Your task to perform on an android device: turn on bluetooth scan Image 0: 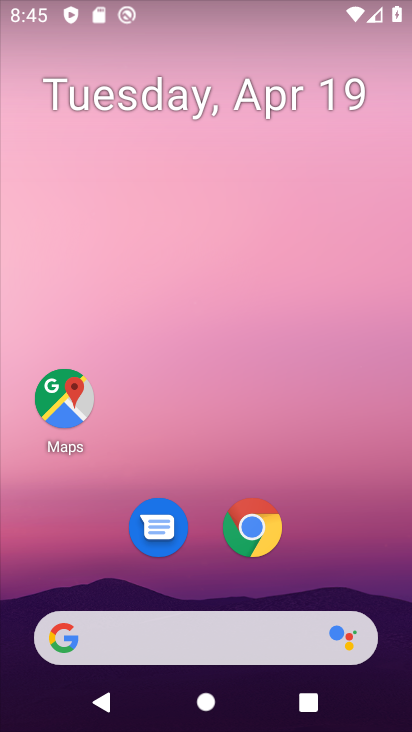
Step 0: drag from (401, 579) to (280, 207)
Your task to perform on an android device: turn on bluetooth scan Image 1: 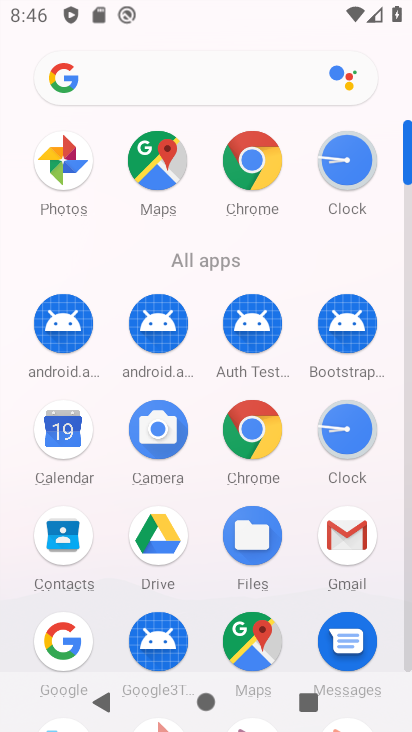
Step 1: click (410, 617)
Your task to perform on an android device: turn on bluetooth scan Image 2: 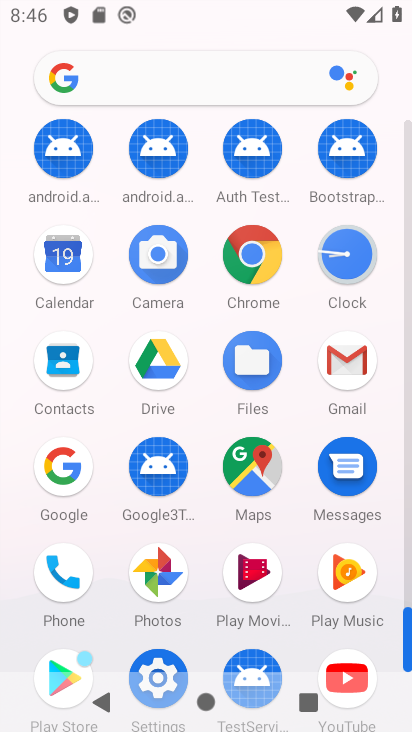
Step 2: click (165, 659)
Your task to perform on an android device: turn on bluetooth scan Image 3: 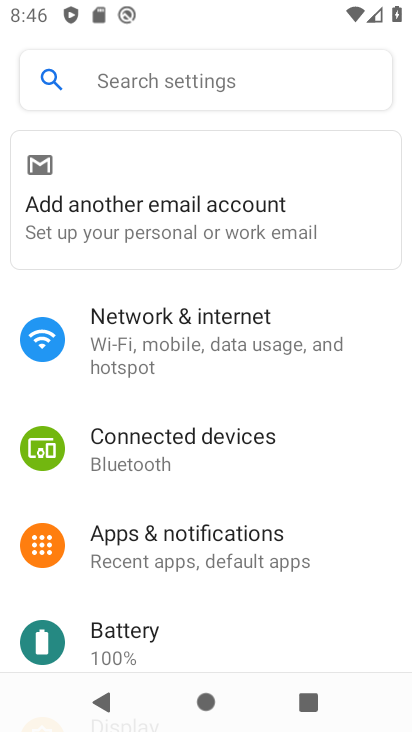
Step 3: drag from (264, 607) to (307, 10)
Your task to perform on an android device: turn on bluetooth scan Image 4: 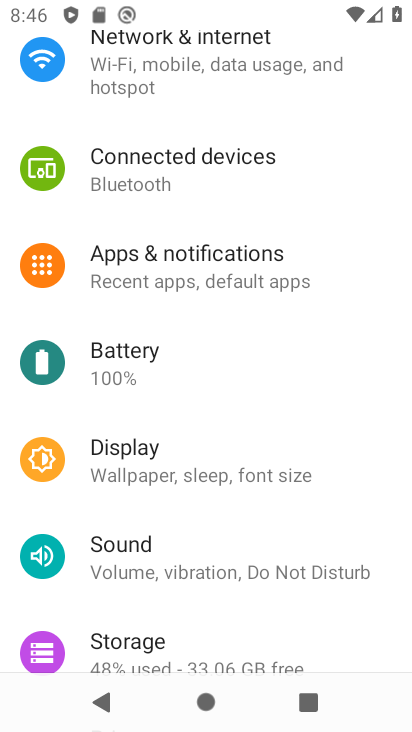
Step 4: drag from (253, 509) to (284, 31)
Your task to perform on an android device: turn on bluetooth scan Image 5: 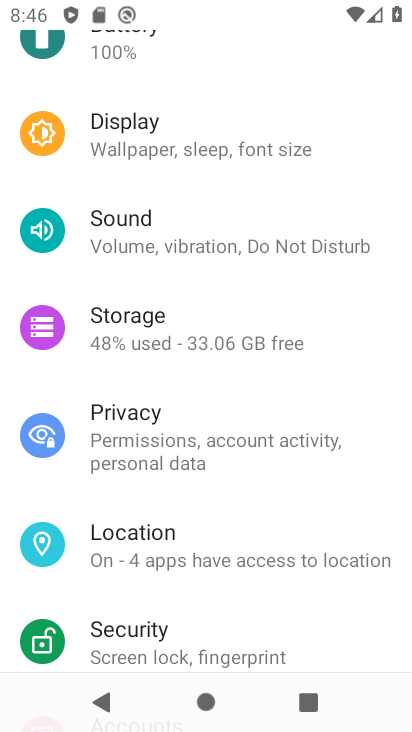
Step 5: click (227, 544)
Your task to perform on an android device: turn on bluetooth scan Image 6: 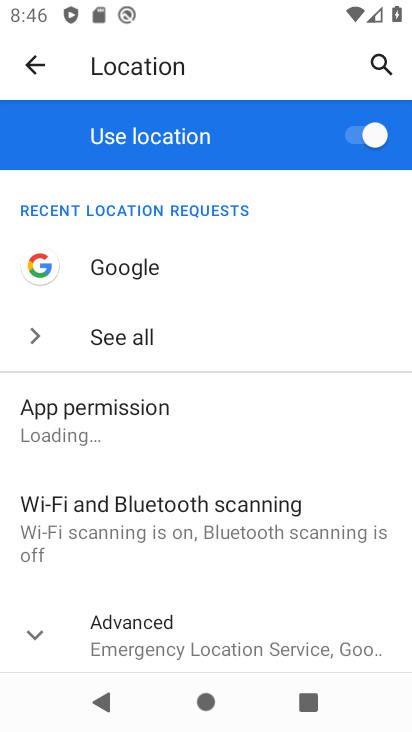
Step 6: click (272, 514)
Your task to perform on an android device: turn on bluetooth scan Image 7: 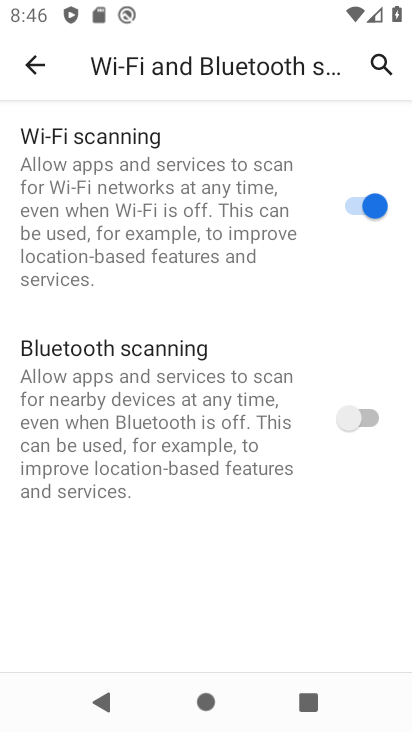
Step 7: click (361, 425)
Your task to perform on an android device: turn on bluetooth scan Image 8: 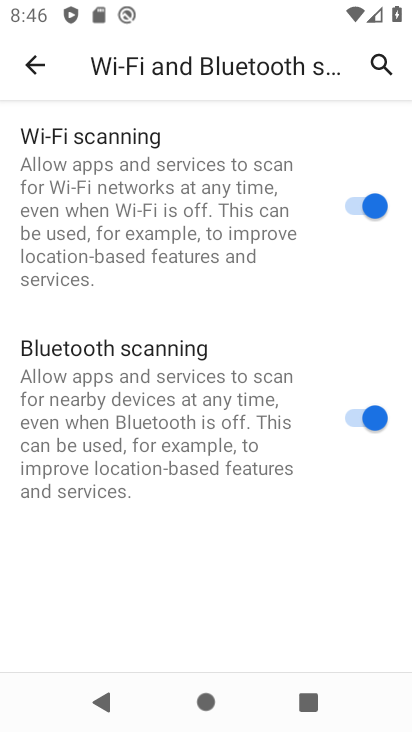
Step 8: task complete